Your task to perform on an android device: Go to Amazon Image 0: 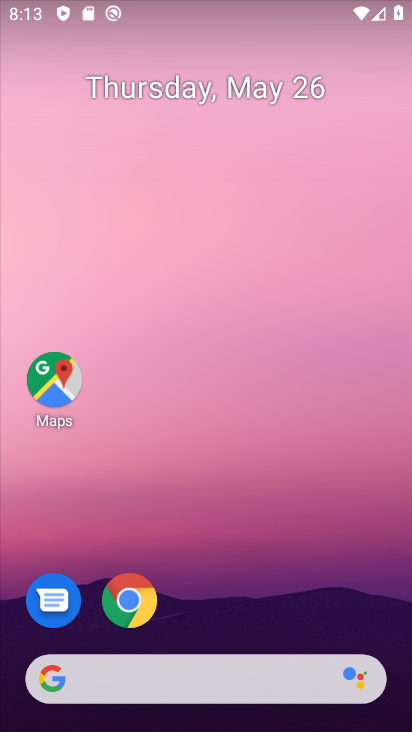
Step 0: click (131, 594)
Your task to perform on an android device: Go to Amazon Image 1: 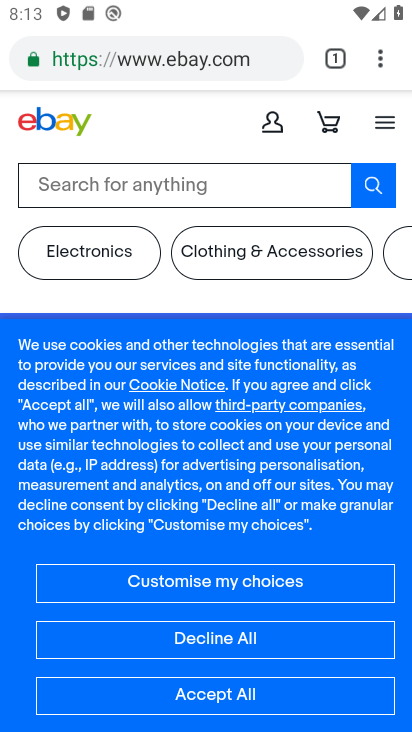
Step 1: click (344, 53)
Your task to perform on an android device: Go to Amazon Image 2: 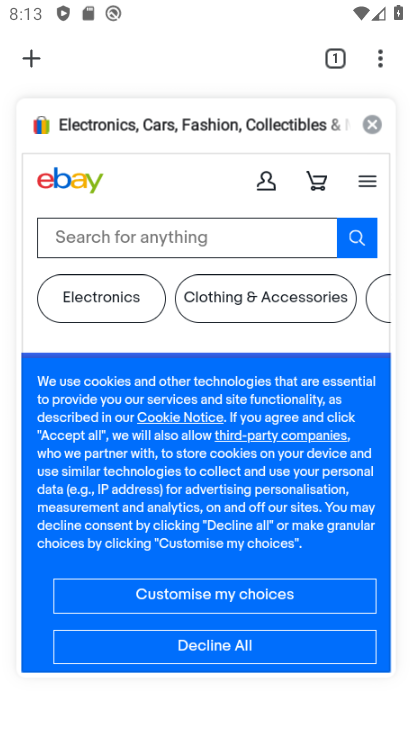
Step 2: click (37, 58)
Your task to perform on an android device: Go to Amazon Image 3: 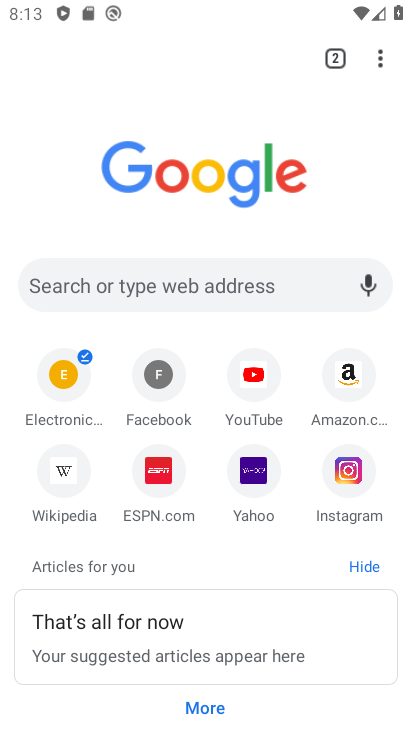
Step 3: click (349, 375)
Your task to perform on an android device: Go to Amazon Image 4: 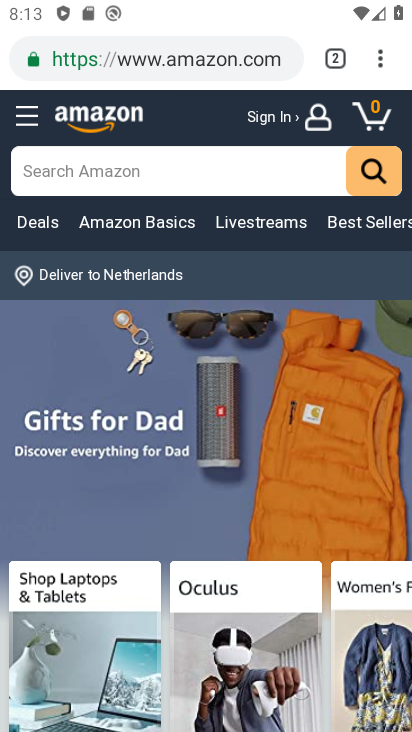
Step 4: task complete